Your task to perform on an android device: Open CNN.com Image 0: 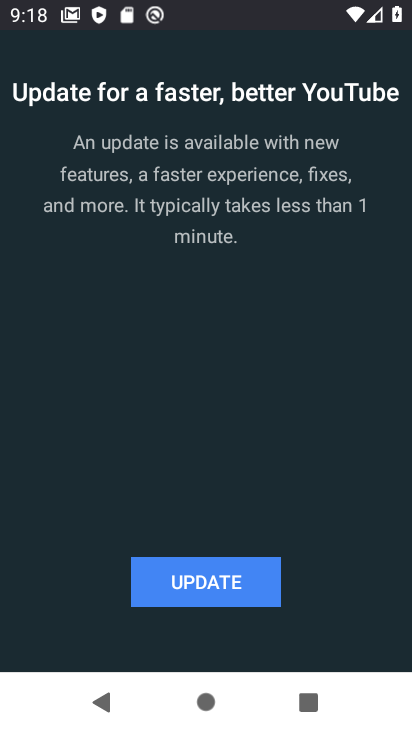
Step 0: press home button
Your task to perform on an android device: Open CNN.com Image 1: 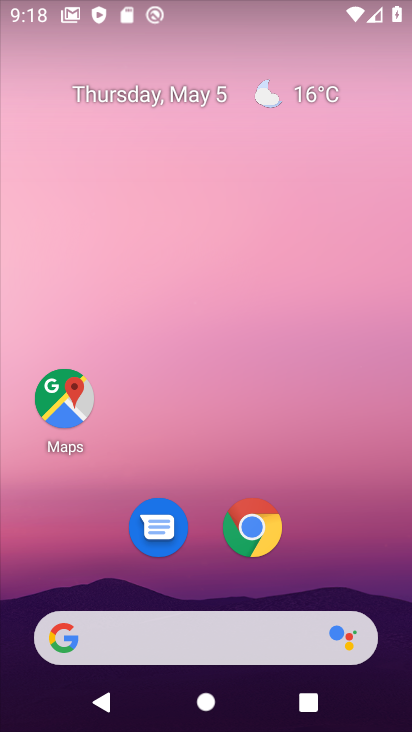
Step 1: click (250, 521)
Your task to perform on an android device: Open CNN.com Image 2: 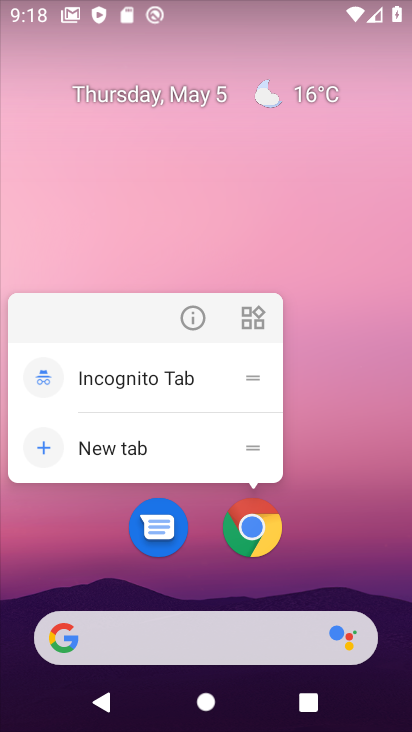
Step 2: click (308, 532)
Your task to perform on an android device: Open CNN.com Image 3: 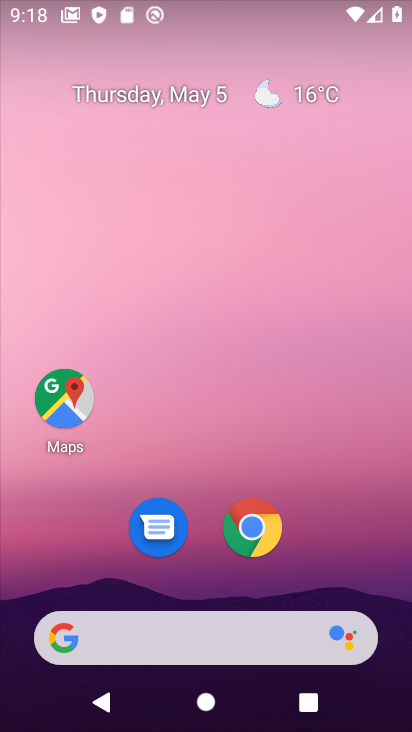
Step 3: click (250, 517)
Your task to perform on an android device: Open CNN.com Image 4: 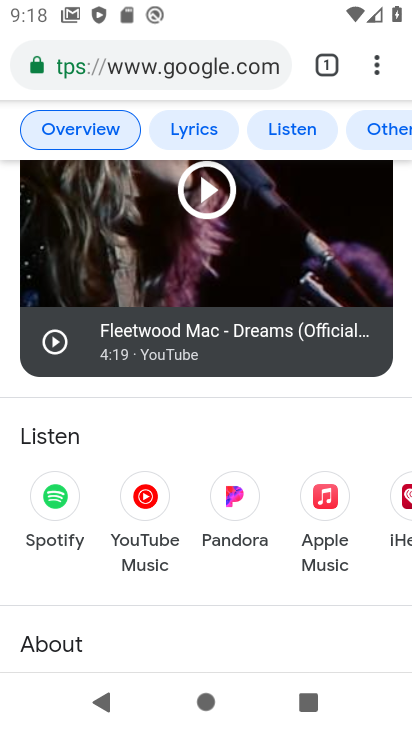
Step 4: press back button
Your task to perform on an android device: Open CNN.com Image 5: 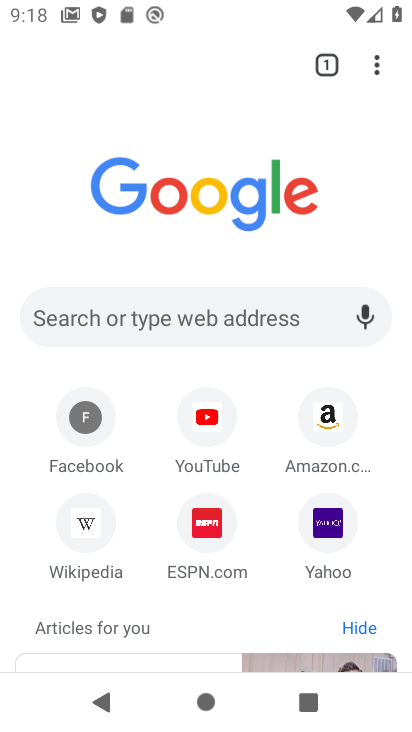
Step 5: click (144, 311)
Your task to perform on an android device: Open CNN.com Image 6: 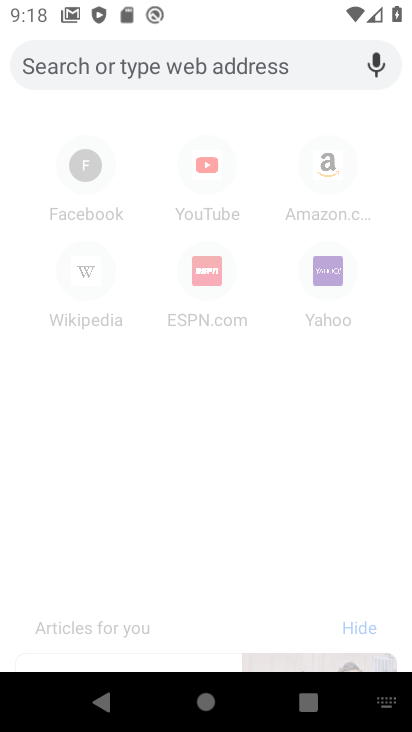
Step 6: type "cnn.com"
Your task to perform on an android device: Open CNN.com Image 7: 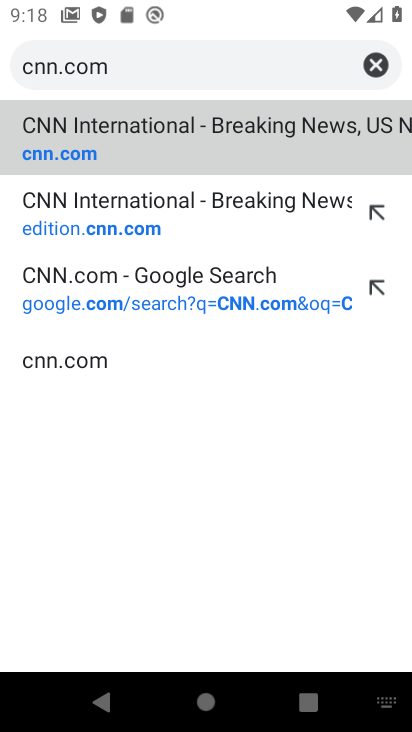
Step 7: click (139, 147)
Your task to perform on an android device: Open CNN.com Image 8: 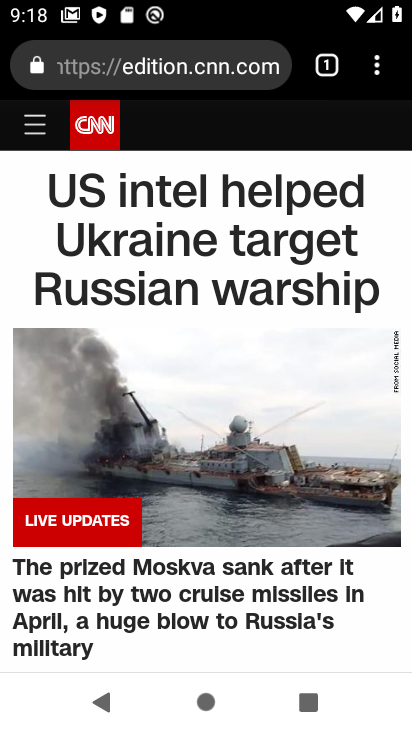
Step 8: task complete